Your task to perform on an android device: Do I have any events tomorrow? Image 0: 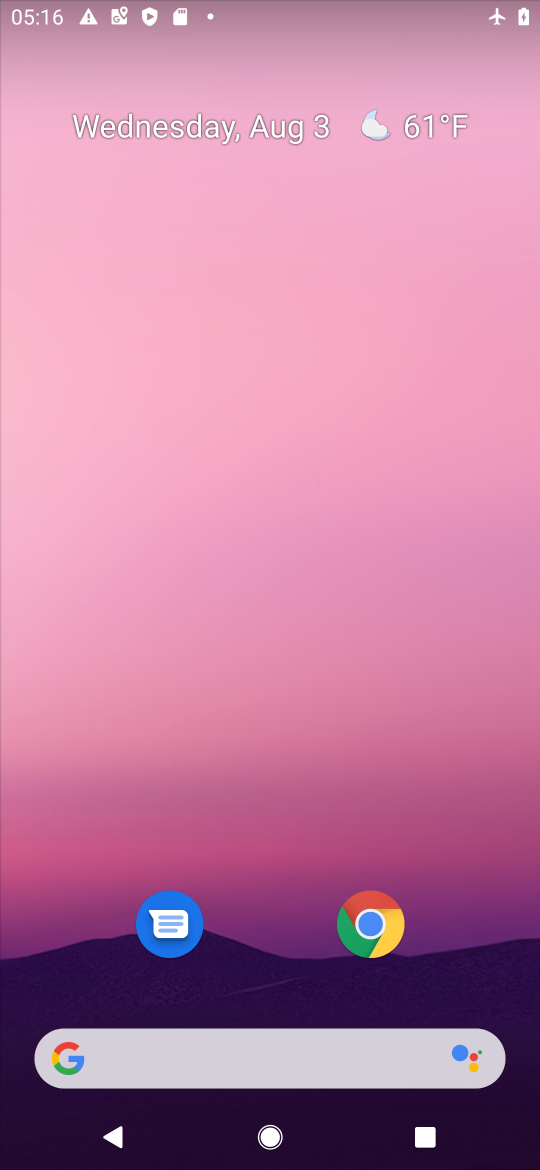
Step 0: drag from (248, 970) to (171, 163)
Your task to perform on an android device: Do I have any events tomorrow? Image 1: 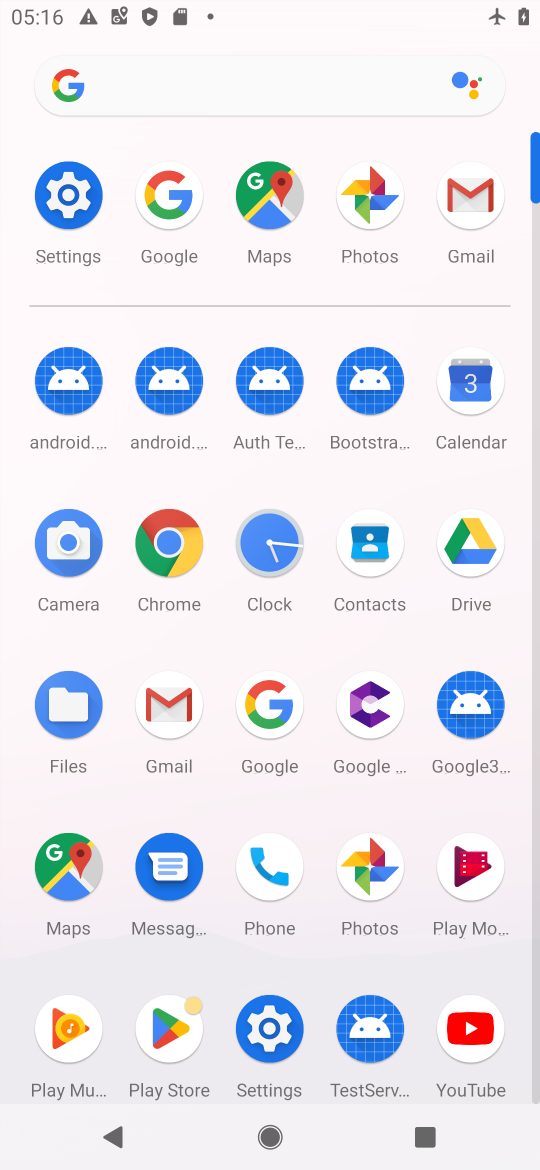
Step 1: click (458, 395)
Your task to perform on an android device: Do I have any events tomorrow? Image 2: 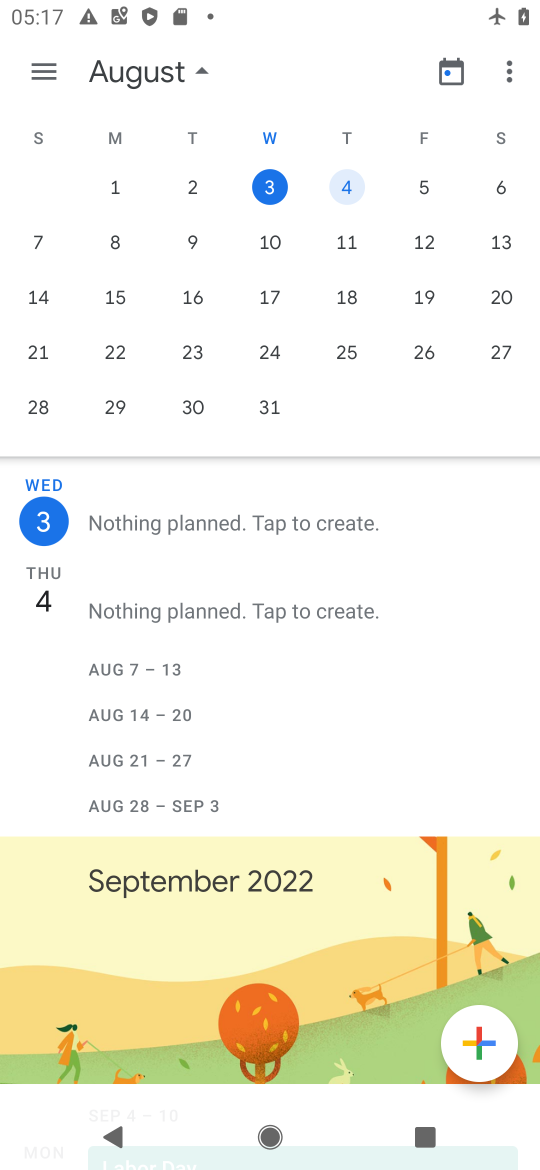
Step 2: click (342, 192)
Your task to perform on an android device: Do I have any events tomorrow? Image 3: 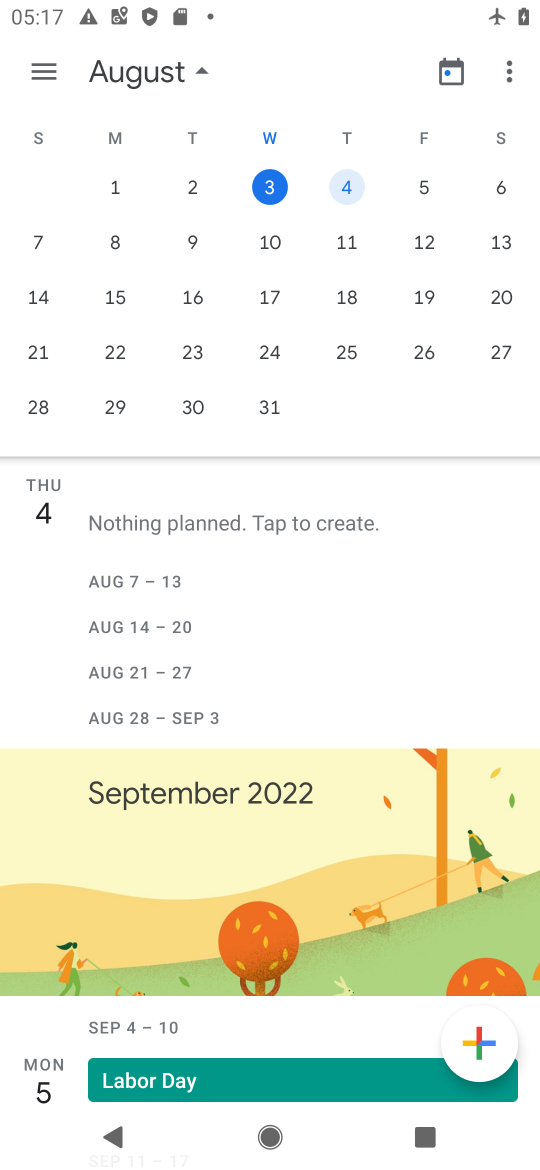
Step 3: task complete